Your task to perform on an android device: Go to calendar. Show me events next week Image 0: 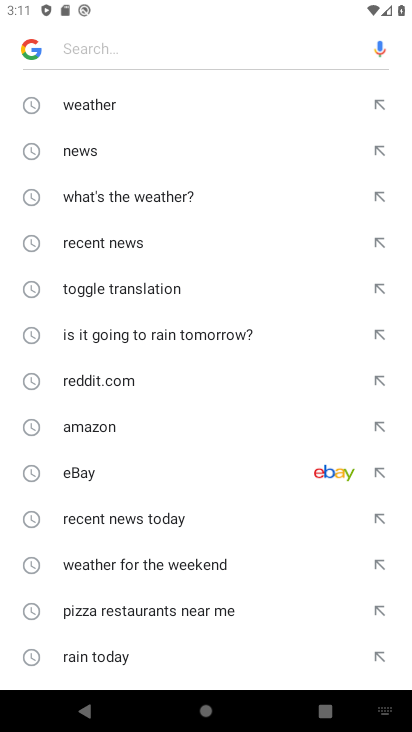
Step 0: press home button
Your task to perform on an android device: Go to calendar. Show me events next week Image 1: 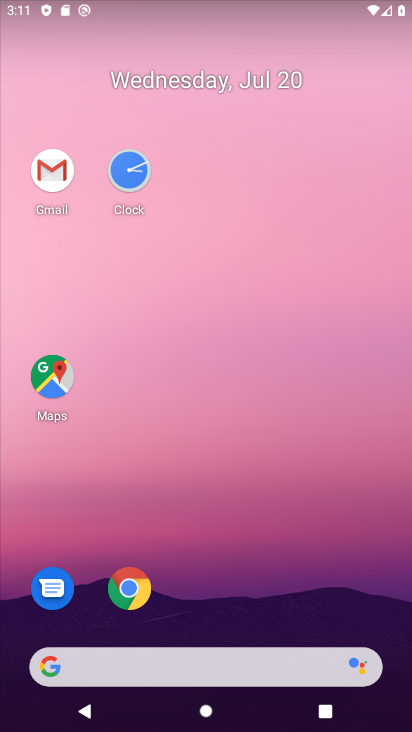
Step 1: drag from (300, 604) to (291, 151)
Your task to perform on an android device: Go to calendar. Show me events next week Image 2: 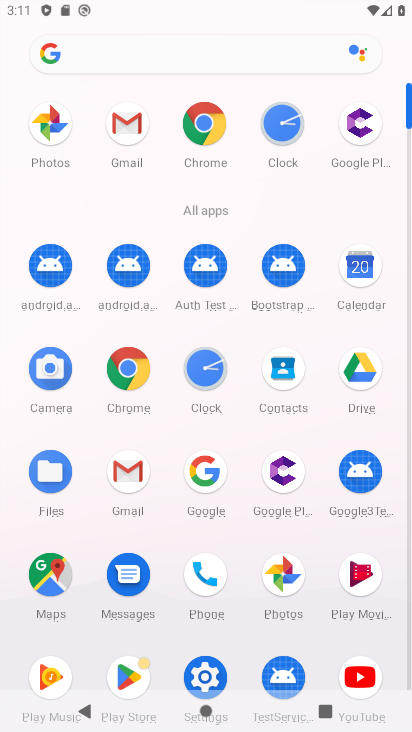
Step 2: drag from (348, 266) to (211, 167)
Your task to perform on an android device: Go to calendar. Show me events next week Image 3: 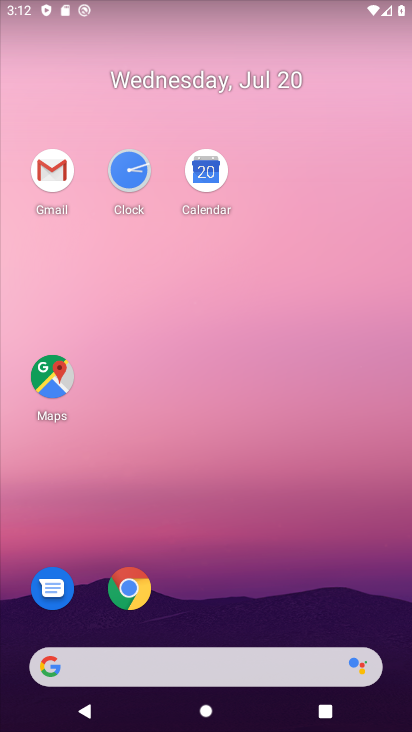
Step 3: click (191, 170)
Your task to perform on an android device: Go to calendar. Show me events next week Image 4: 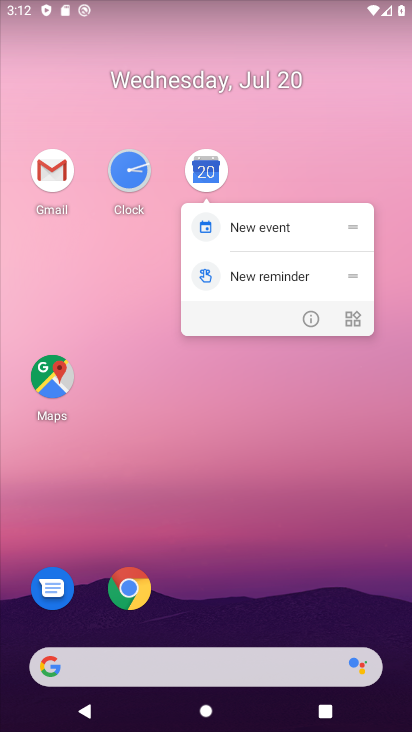
Step 4: click (194, 171)
Your task to perform on an android device: Go to calendar. Show me events next week Image 5: 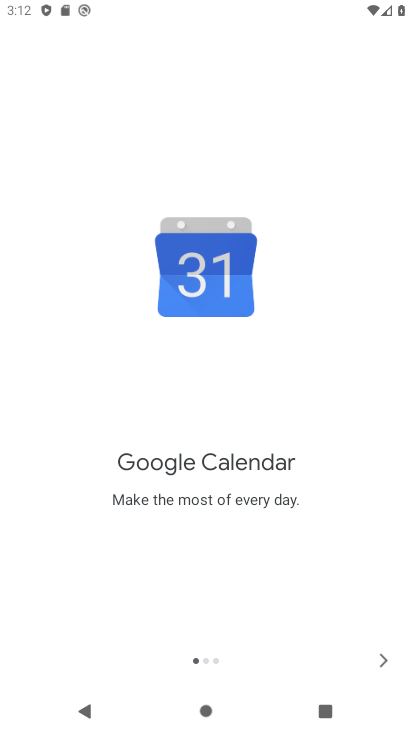
Step 5: click (399, 661)
Your task to perform on an android device: Go to calendar. Show me events next week Image 6: 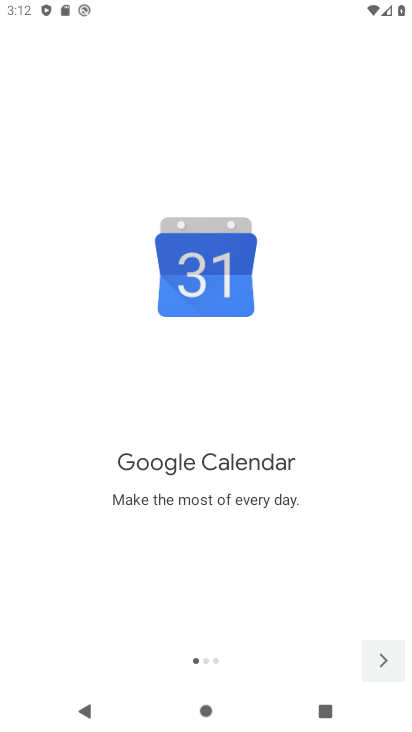
Step 6: click (379, 654)
Your task to perform on an android device: Go to calendar. Show me events next week Image 7: 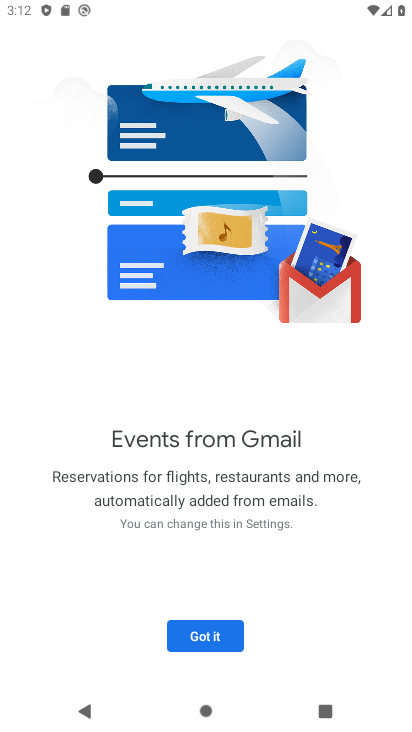
Step 7: click (182, 638)
Your task to perform on an android device: Go to calendar. Show me events next week Image 8: 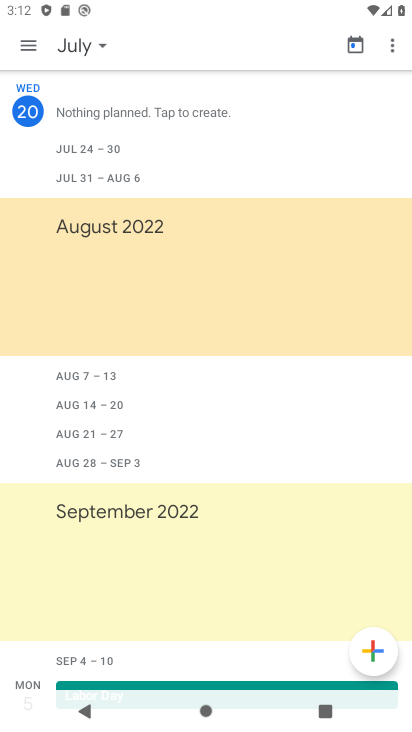
Step 8: click (29, 48)
Your task to perform on an android device: Go to calendar. Show me events next week Image 9: 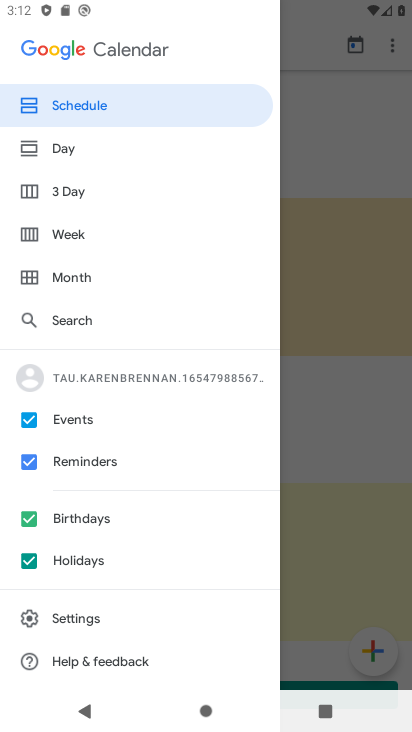
Step 9: click (105, 221)
Your task to perform on an android device: Go to calendar. Show me events next week Image 10: 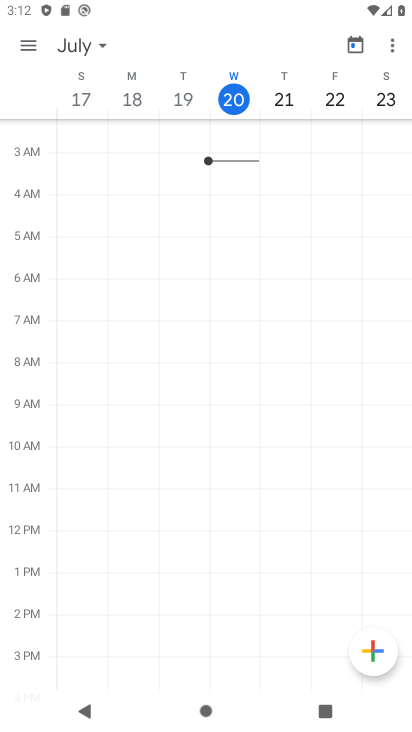
Step 10: task complete